Your task to perform on an android device: snooze an email in the gmail app Image 0: 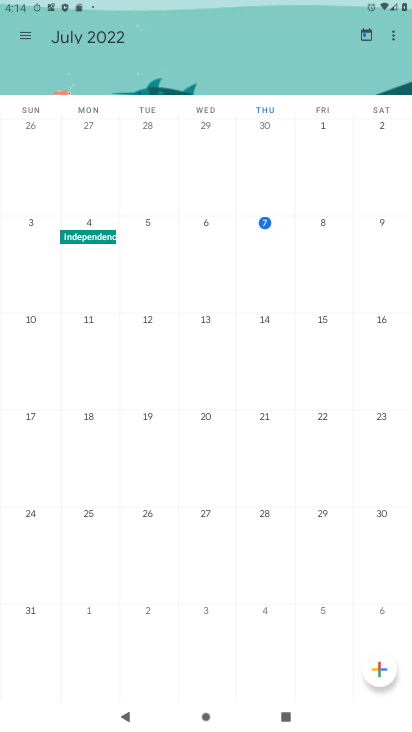
Step 0: press home button
Your task to perform on an android device: snooze an email in the gmail app Image 1: 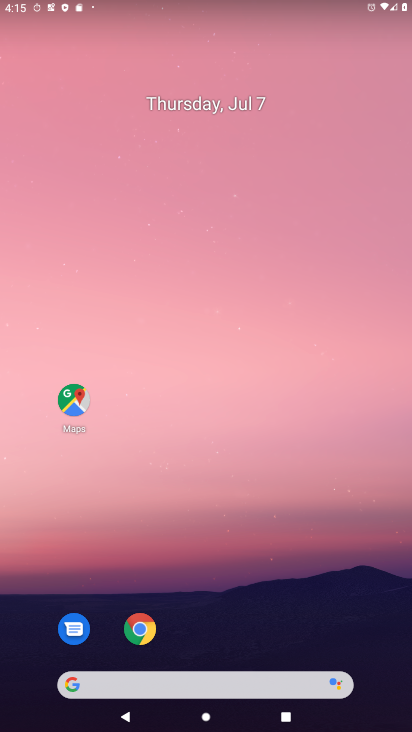
Step 1: drag from (273, 101) to (283, 18)
Your task to perform on an android device: snooze an email in the gmail app Image 2: 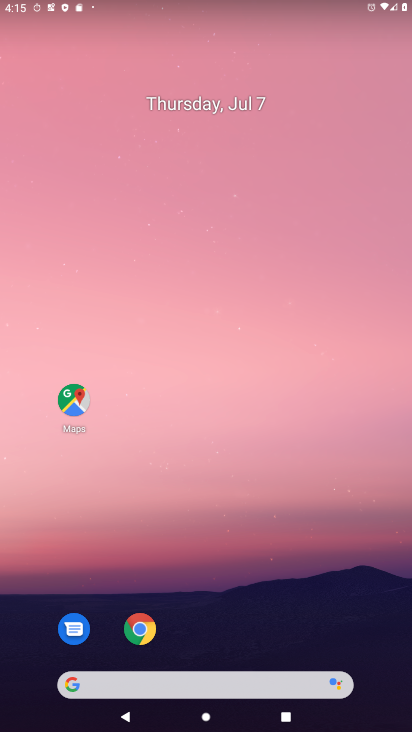
Step 2: drag from (199, 598) to (212, 34)
Your task to perform on an android device: snooze an email in the gmail app Image 3: 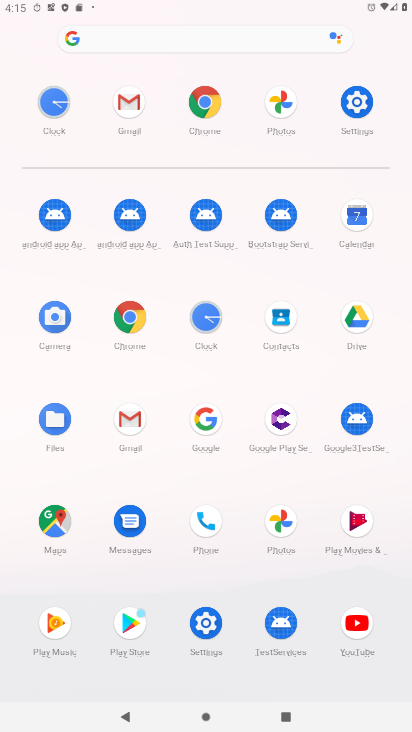
Step 3: click (122, 102)
Your task to perform on an android device: snooze an email in the gmail app Image 4: 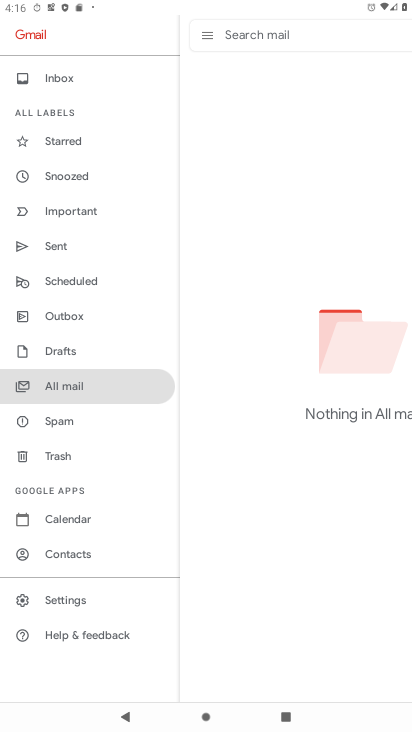
Step 4: click (82, 387)
Your task to perform on an android device: snooze an email in the gmail app Image 5: 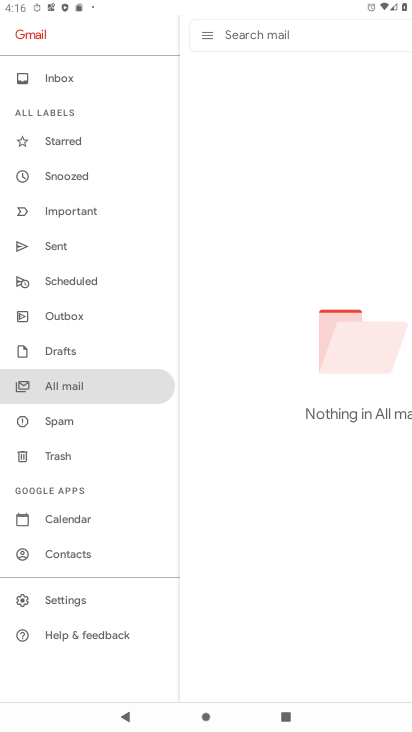
Step 5: task complete